Your task to perform on an android device: toggle improve location accuracy Image 0: 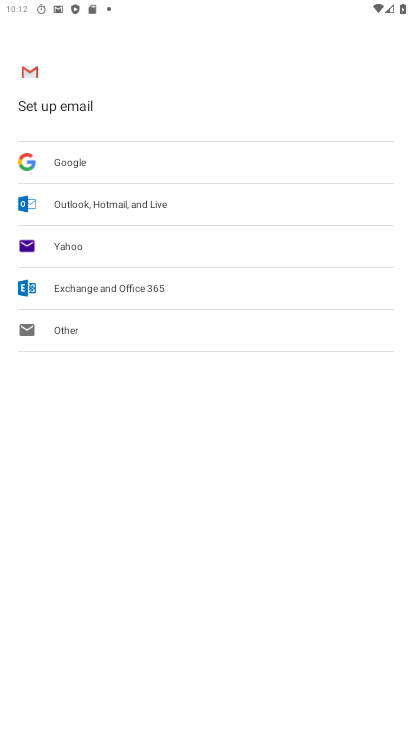
Step 0: press home button
Your task to perform on an android device: toggle improve location accuracy Image 1: 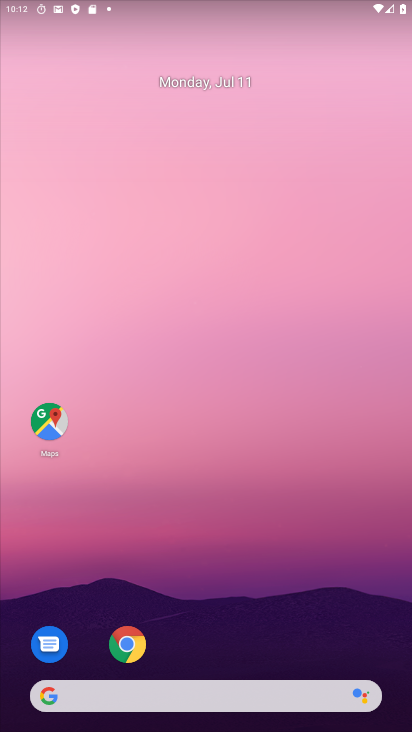
Step 1: drag from (236, 656) to (317, 70)
Your task to perform on an android device: toggle improve location accuracy Image 2: 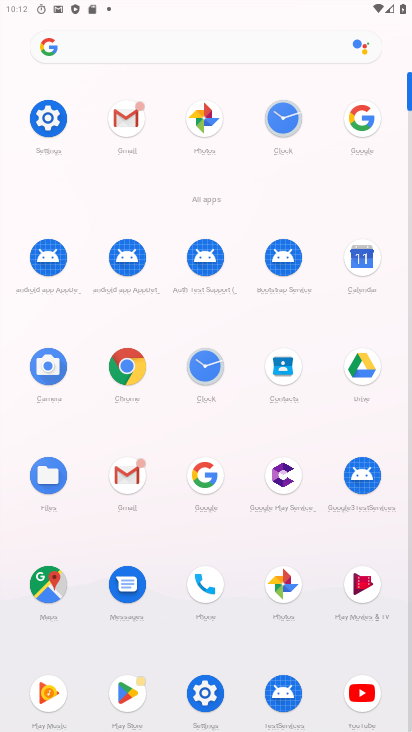
Step 2: click (208, 697)
Your task to perform on an android device: toggle improve location accuracy Image 3: 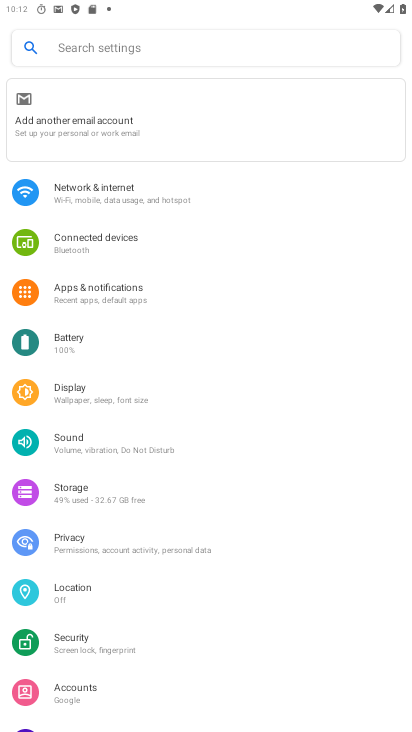
Step 3: click (99, 589)
Your task to perform on an android device: toggle improve location accuracy Image 4: 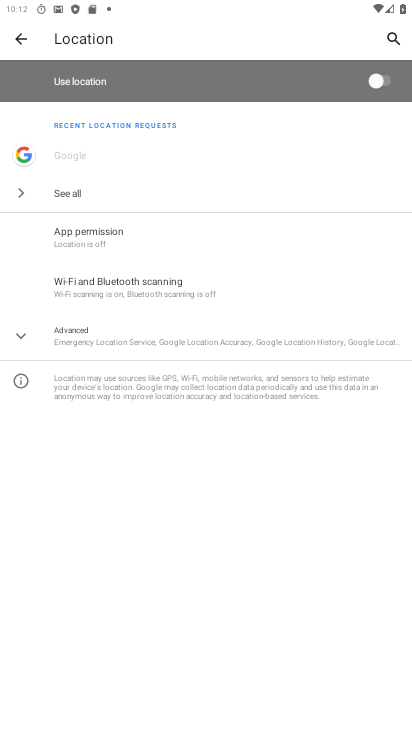
Step 4: click (90, 338)
Your task to perform on an android device: toggle improve location accuracy Image 5: 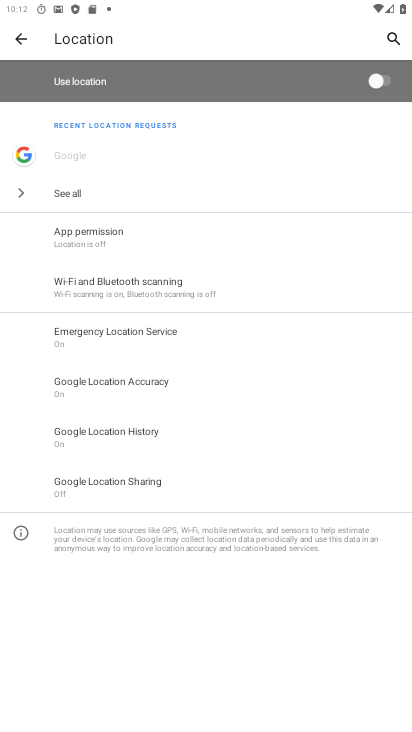
Step 5: click (129, 383)
Your task to perform on an android device: toggle improve location accuracy Image 6: 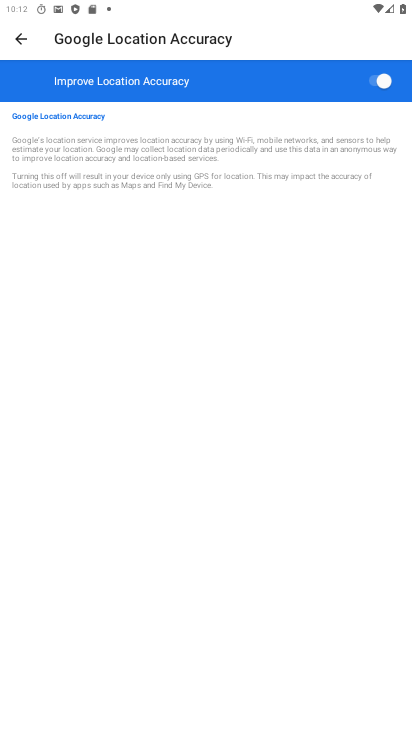
Step 6: click (388, 80)
Your task to perform on an android device: toggle improve location accuracy Image 7: 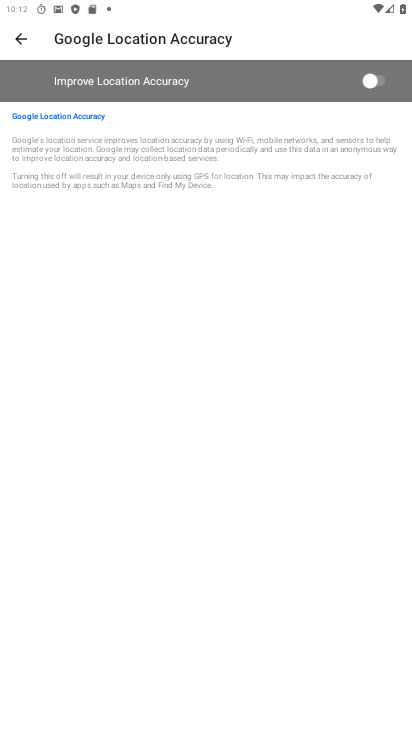
Step 7: task complete